Your task to perform on an android device: check battery use Image 0: 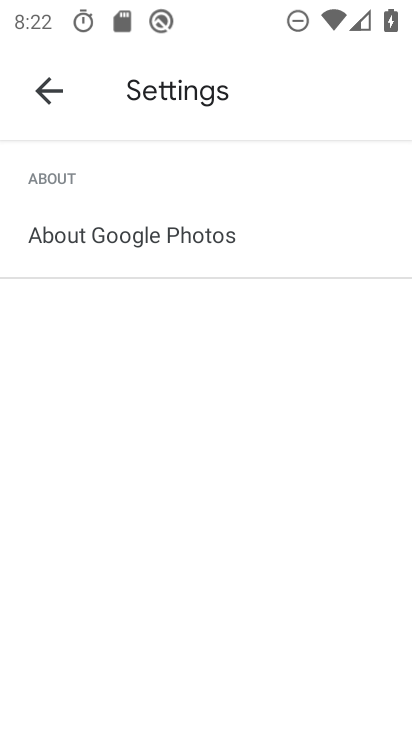
Step 0: press home button
Your task to perform on an android device: check battery use Image 1: 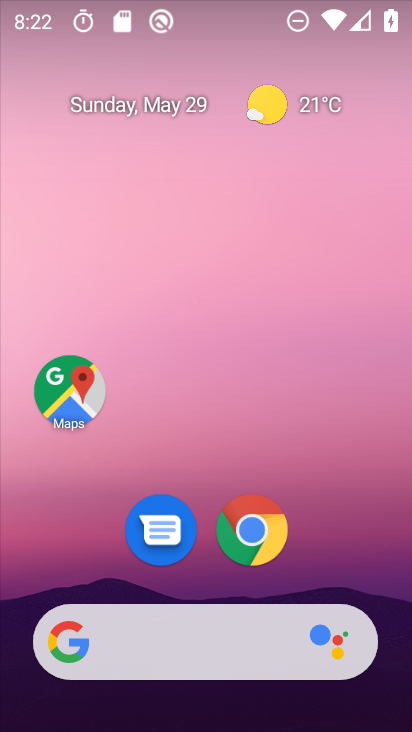
Step 1: drag from (249, 688) to (240, 138)
Your task to perform on an android device: check battery use Image 2: 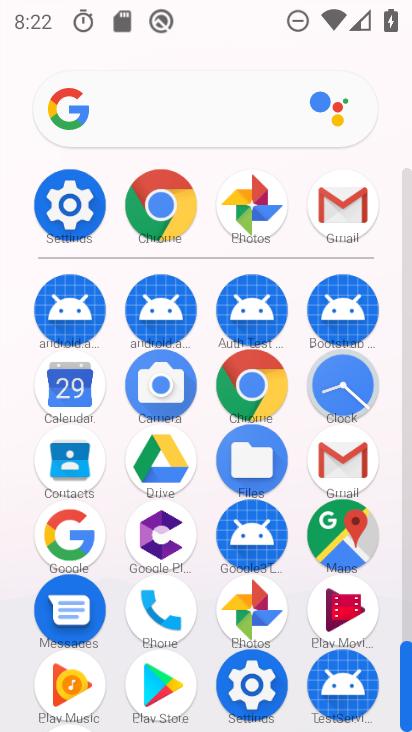
Step 2: click (63, 227)
Your task to perform on an android device: check battery use Image 3: 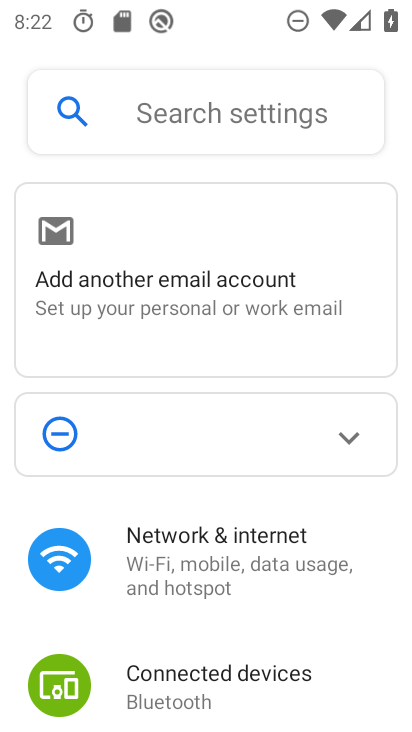
Step 3: drag from (221, 632) to (235, 262)
Your task to perform on an android device: check battery use Image 4: 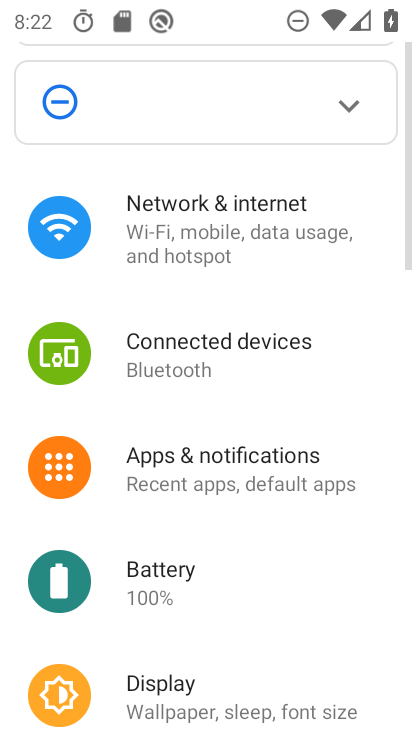
Step 4: click (193, 523)
Your task to perform on an android device: check battery use Image 5: 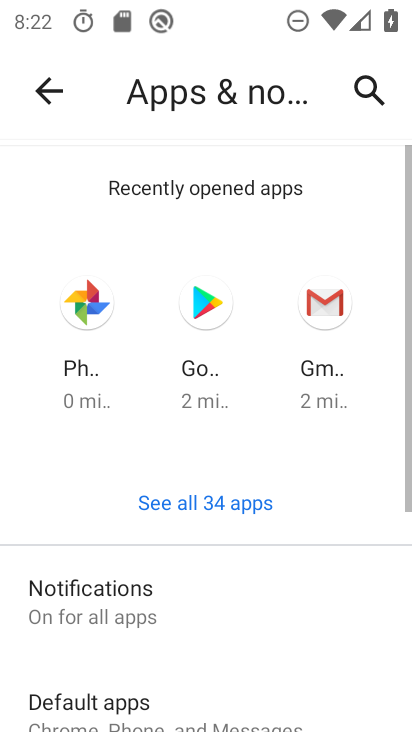
Step 5: click (159, 593)
Your task to perform on an android device: check battery use Image 6: 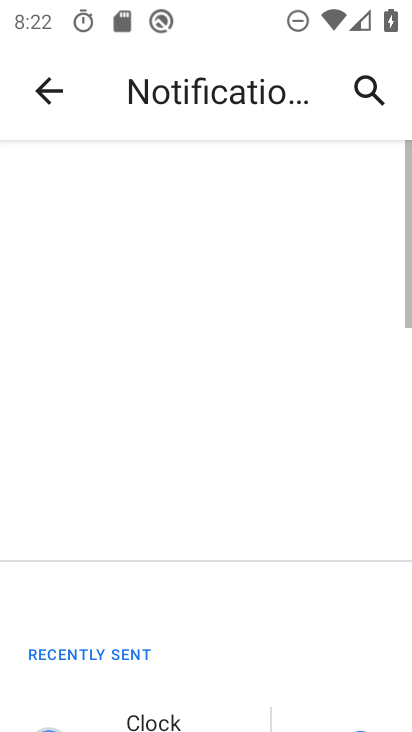
Step 6: click (38, 111)
Your task to perform on an android device: check battery use Image 7: 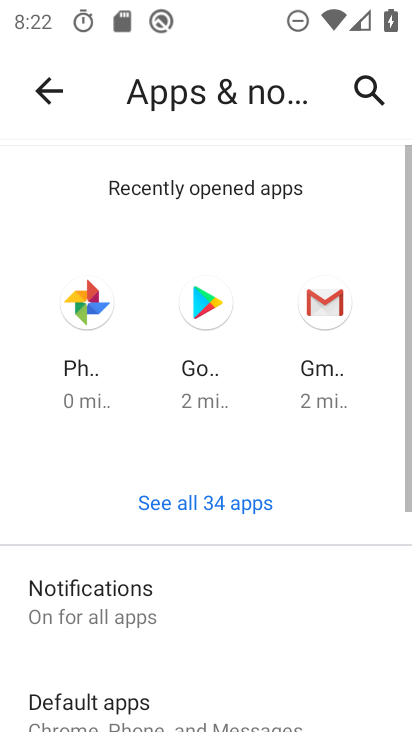
Step 7: click (38, 110)
Your task to perform on an android device: check battery use Image 8: 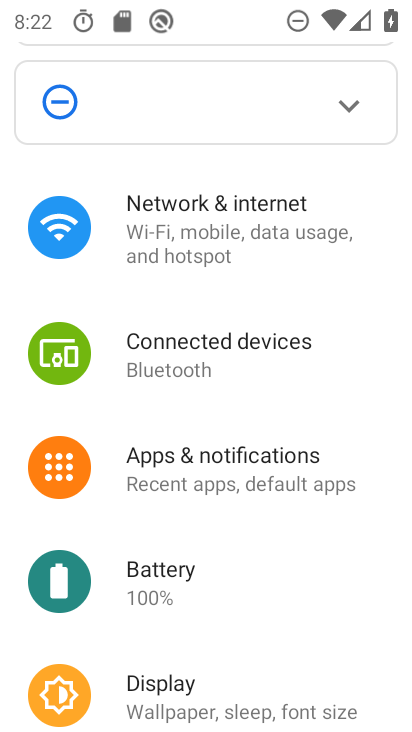
Step 8: click (167, 608)
Your task to perform on an android device: check battery use Image 9: 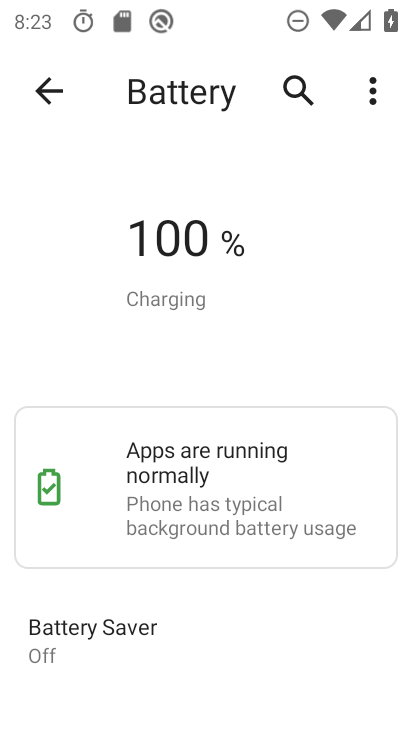
Step 9: task complete